Your task to perform on an android device: Go to location settings Image 0: 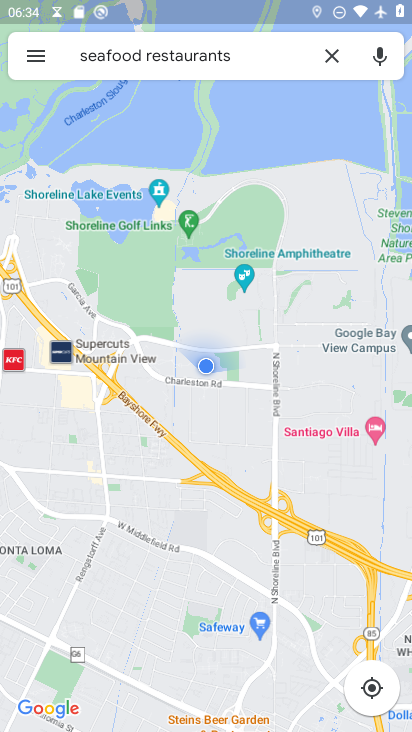
Step 0: press home button
Your task to perform on an android device: Go to location settings Image 1: 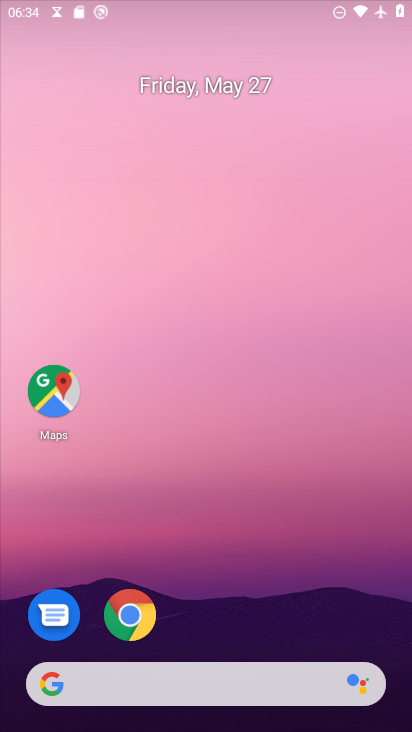
Step 1: drag from (260, 580) to (180, 0)
Your task to perform on an android device: Go to location settings Image 2: 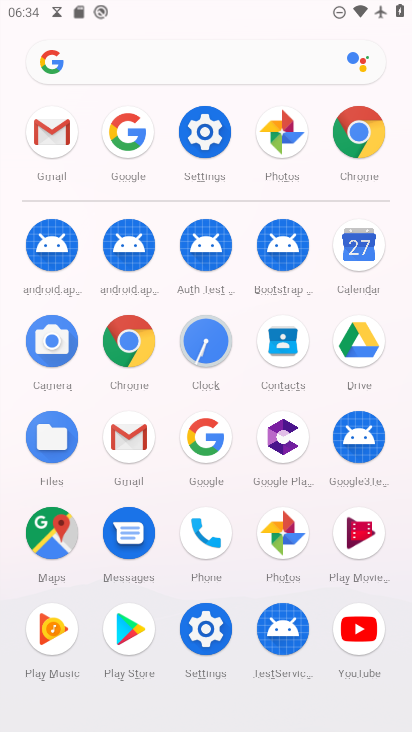
Step 2: click (212, 128)
Your task to perform on an android device: Go to location settings Image 3: 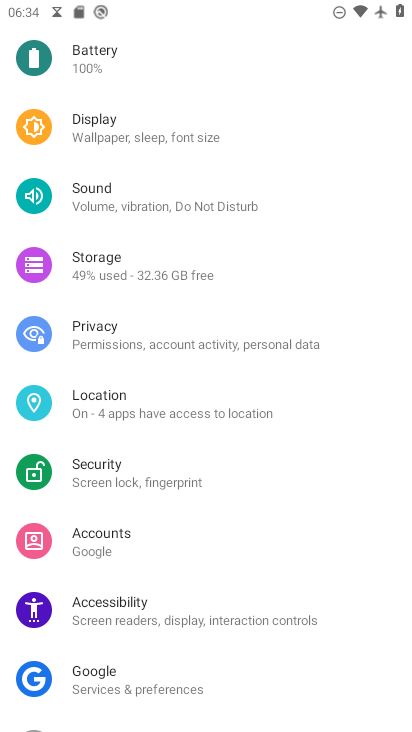
Step 3: click (168, 395)
Your task to perform on an android device: Go to location settings Image 4: 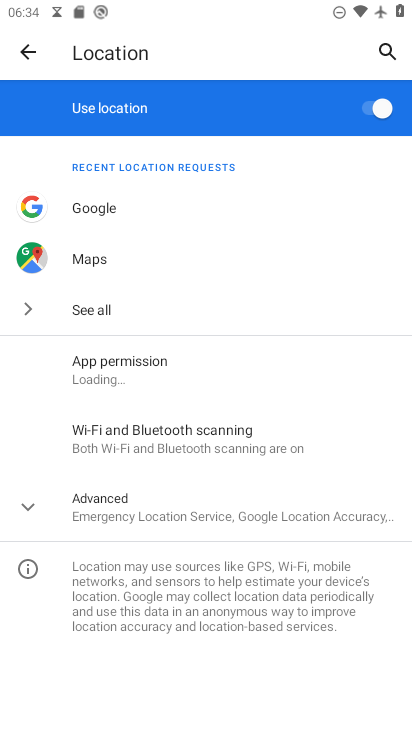
Step 4: task complete